Your task to perform on an android device: Open wifi settings Image 0: 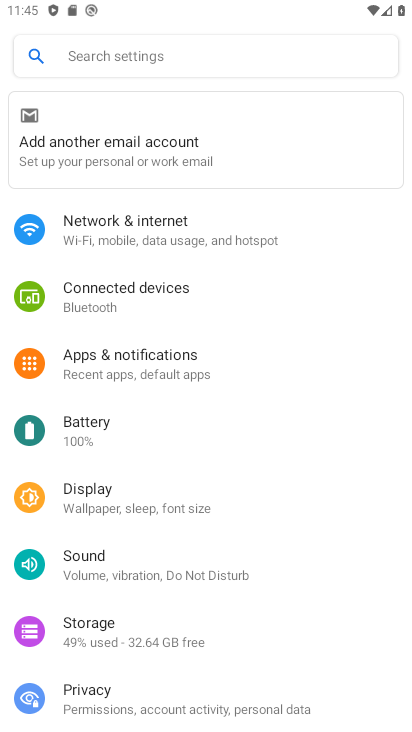
Step 0: click (134, 221)
Your task to perform on an android device: Open wifi settings Image 1: 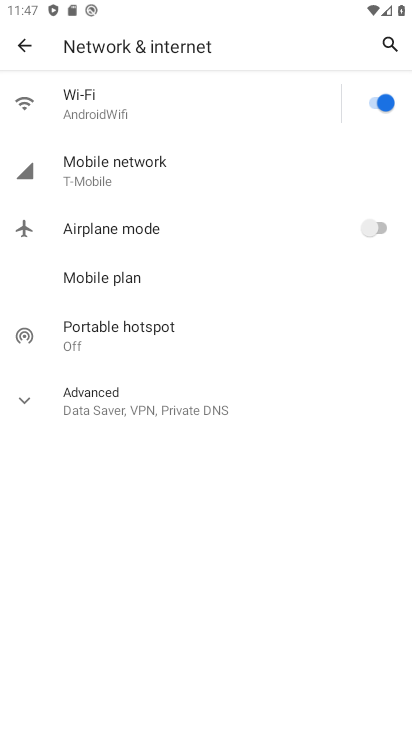
Step 1: click (124, 94)
Your task to perform on an android device: Open wifi settings Image 2: 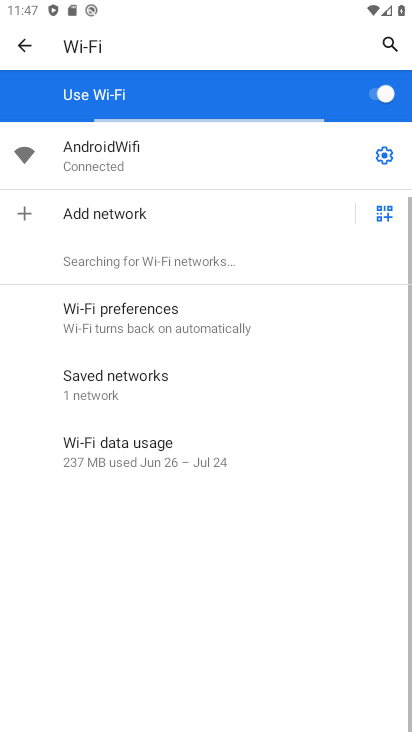
Step 2: click (380, 151)
Your task to perform on an android device: Open wifi settings Image 3: 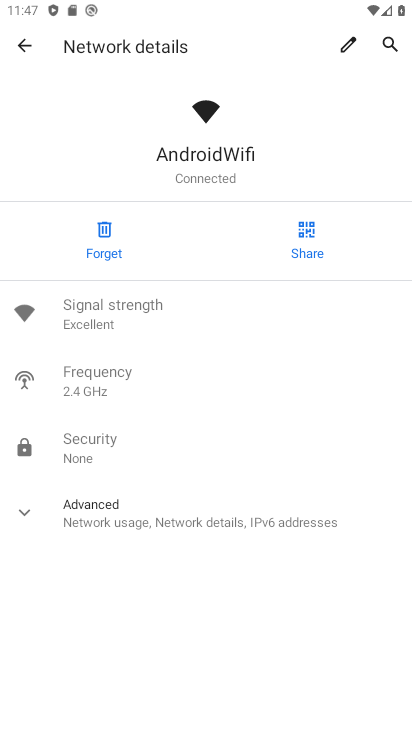
Step 3: click (176, 495)
Your task to perform on an android device: Open wifi settings Image 4: 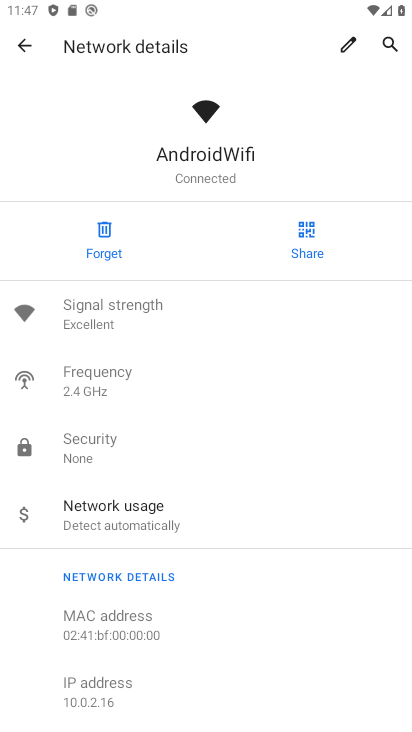
Step 4: task complete